Your task to perform on an android device: install app "DoorDash - Dasher" Image 0: 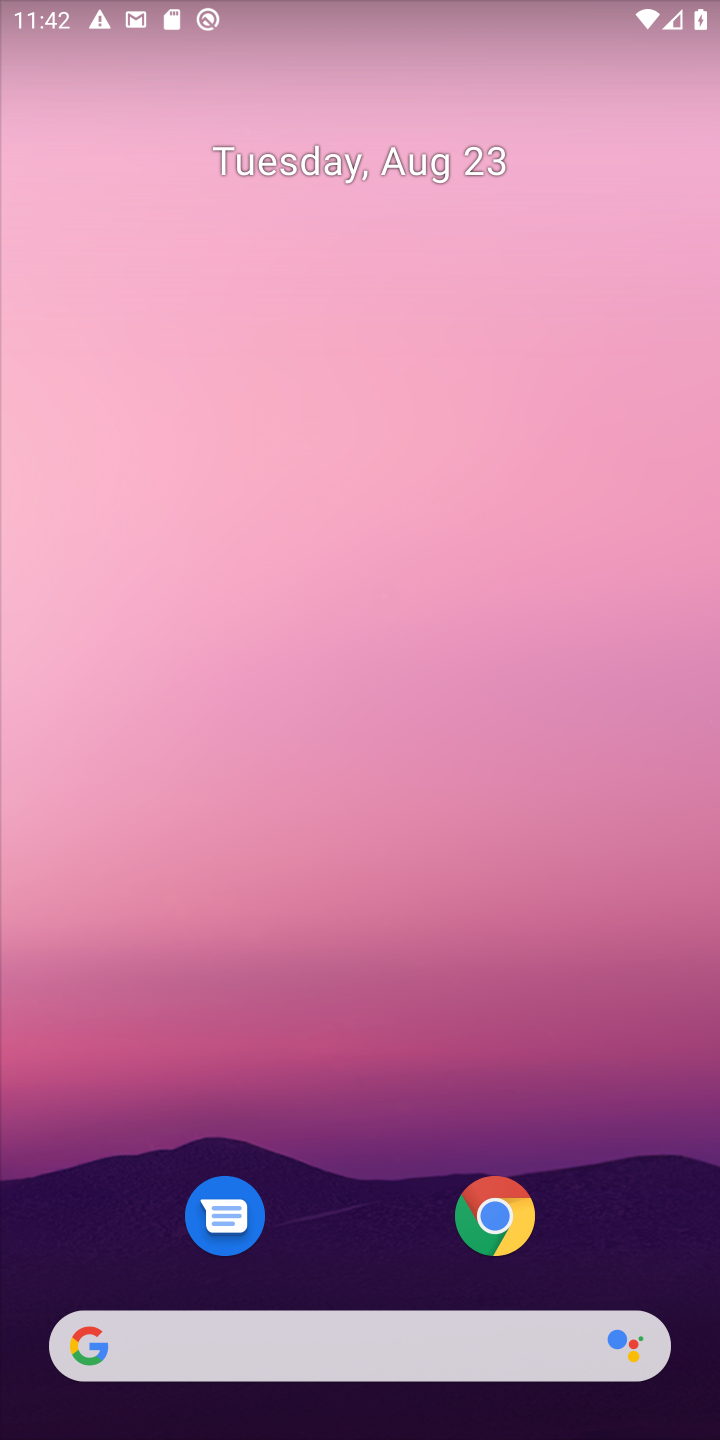
Step 0: drag from (297, 1312) to (456, 119)
Your task to perform on an android device: install app "DoorDash - Dasher" Image 1: 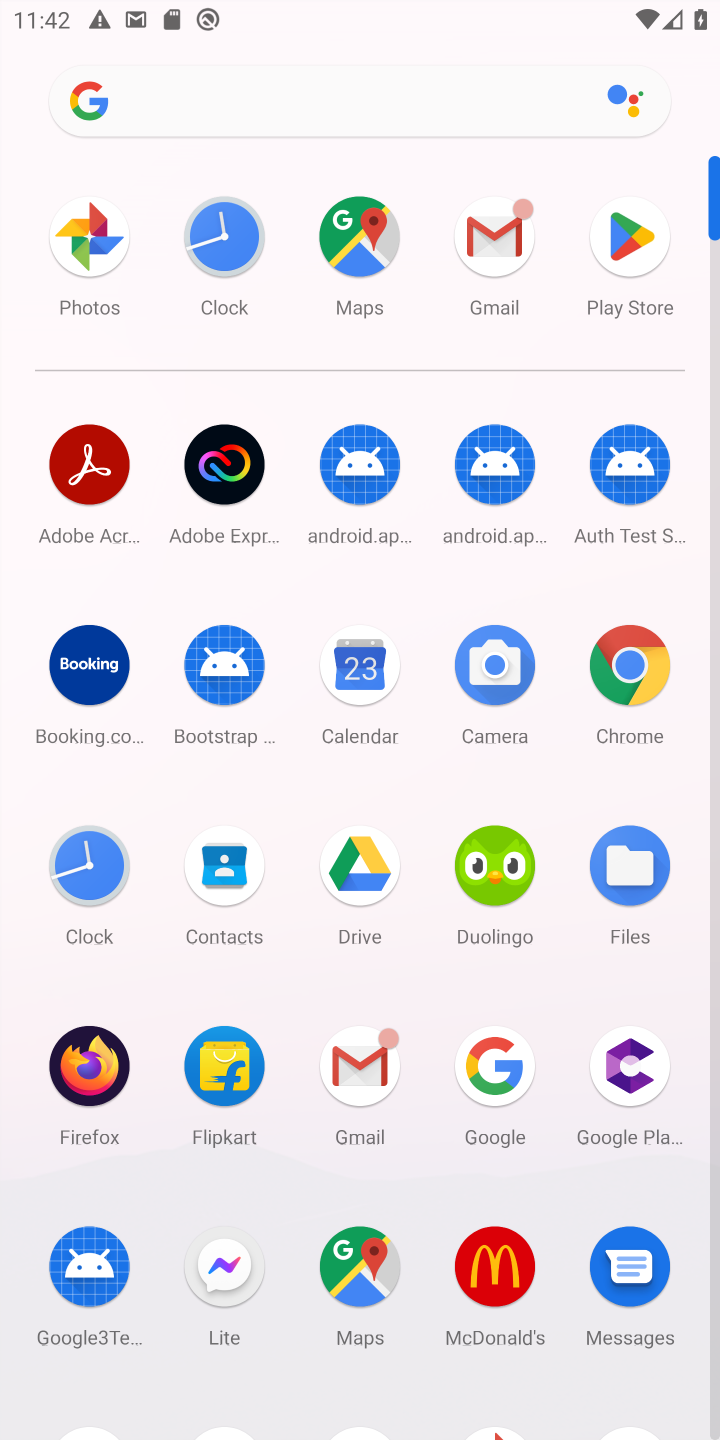
Step 1: click (628, 247)
Your task to perform on an android device: install app "DoorDash - Dasher" Image 2: 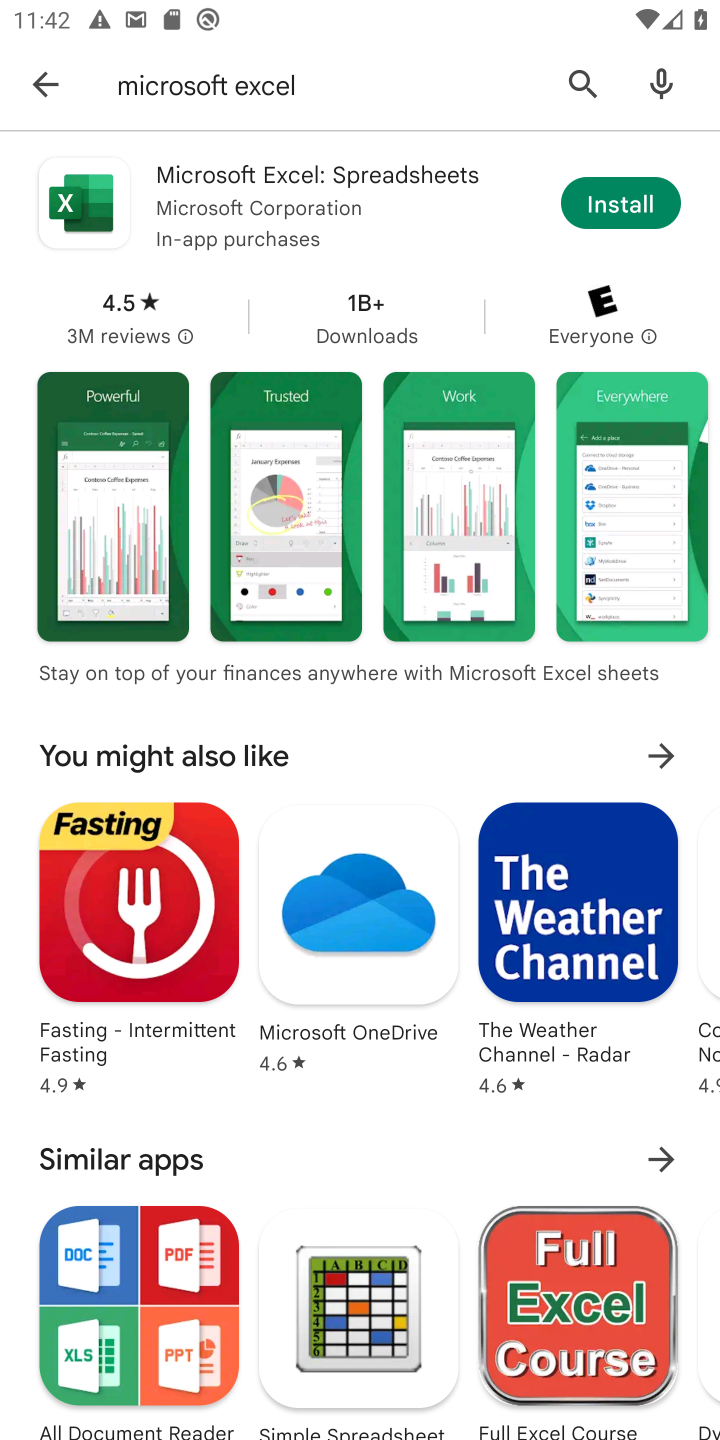
Step 2: press back button
Your task to perform on an android device: install app "DoorDash - Dasher" Image 3: 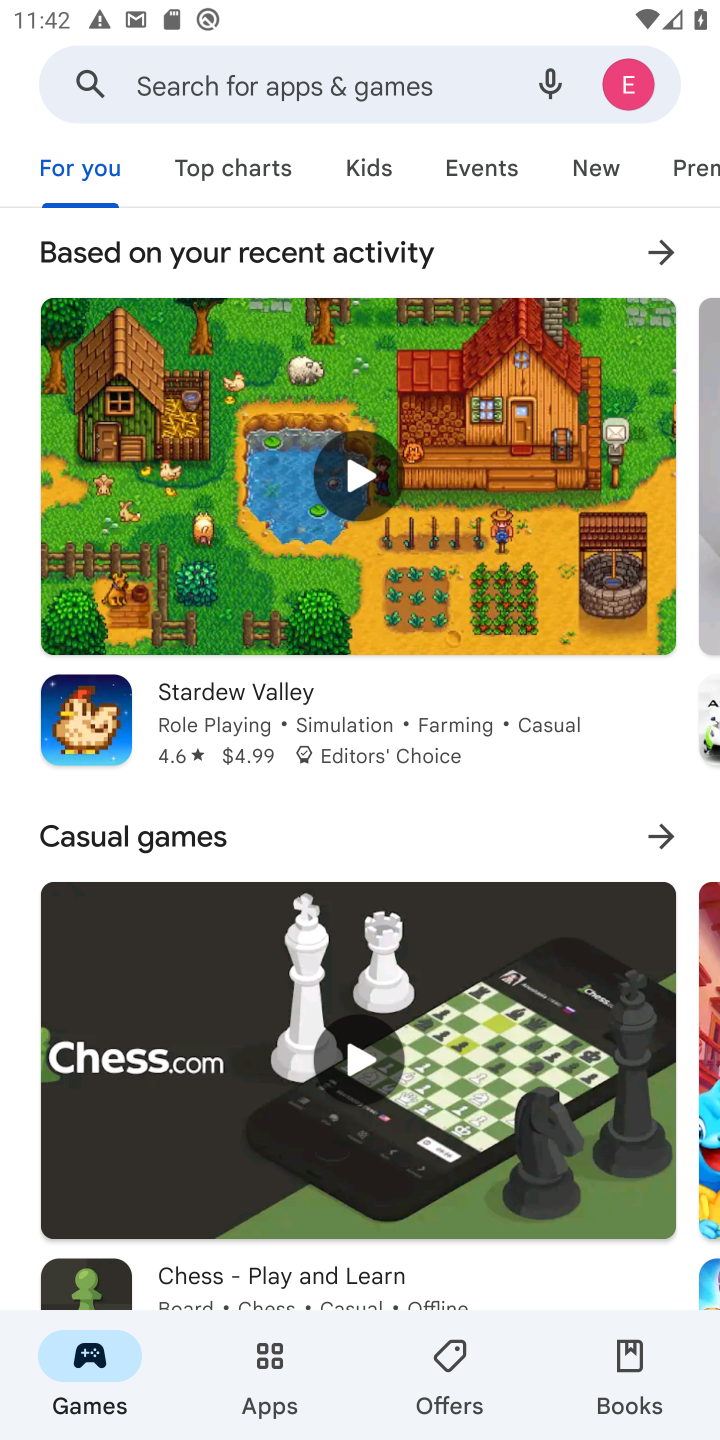
Step 3: click (432, 93)
Your task to perform on an android device: install app "DoorDash - Dasher" Image 4: 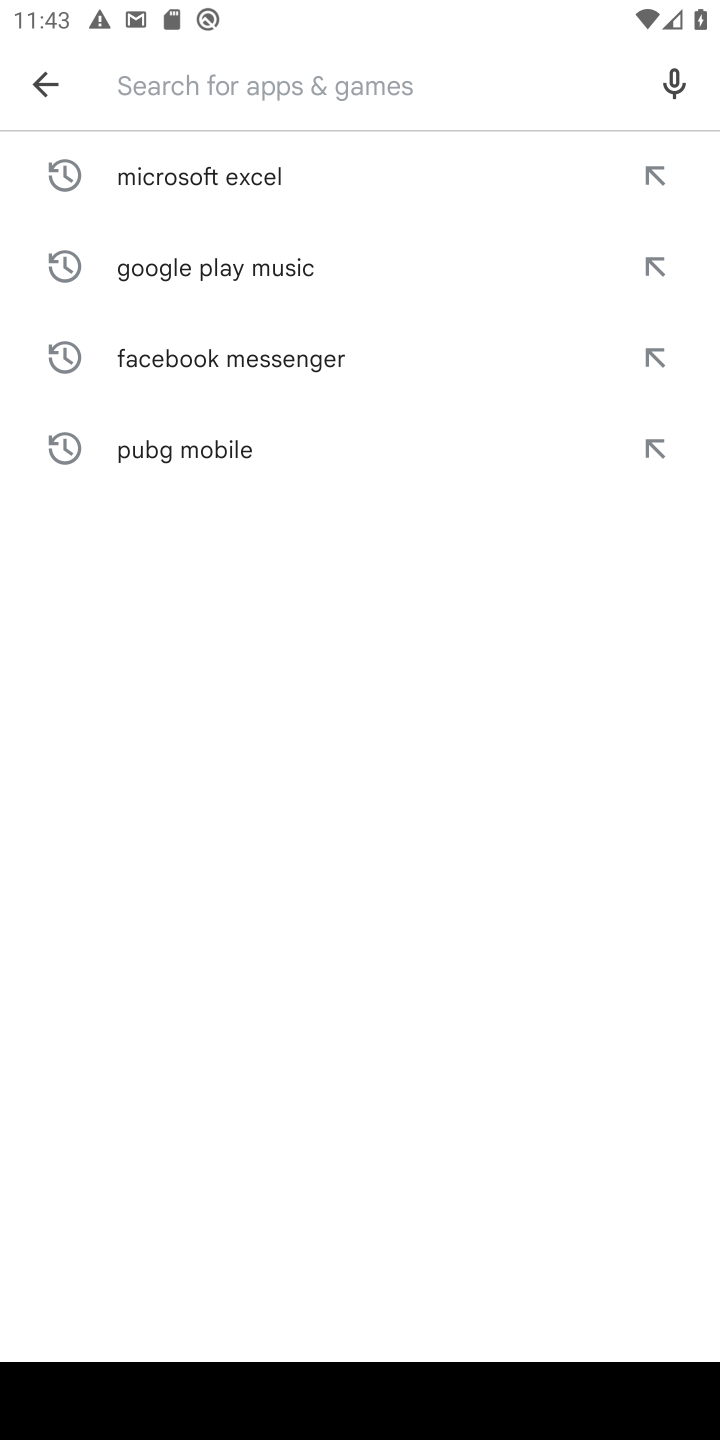
Step 4: type "DoorDash - Dasher"
Your task to perform on an android device: install app "DoorDash - Dasher" Image 5: 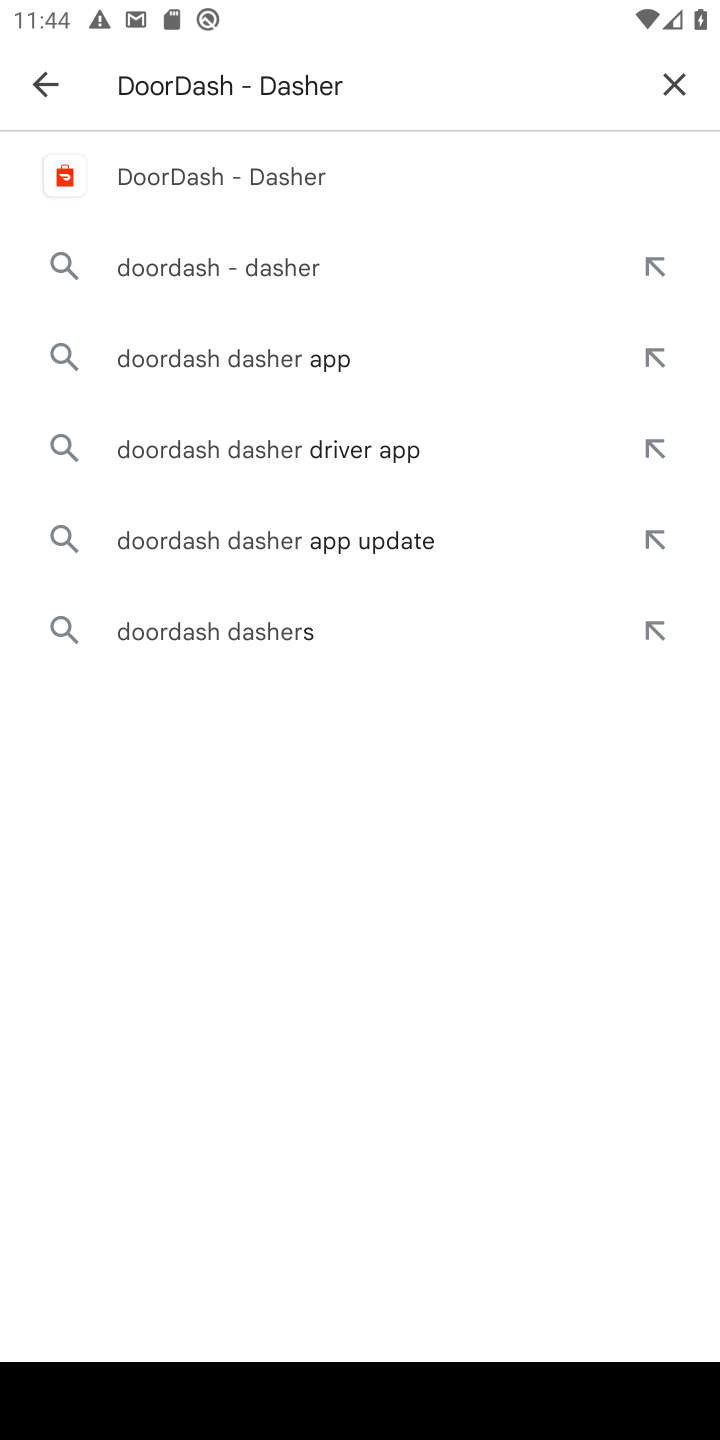
Step 5: click (219, 181)
Your task to perform on an android device: install app "DoorDash - Dasher" Image 6: 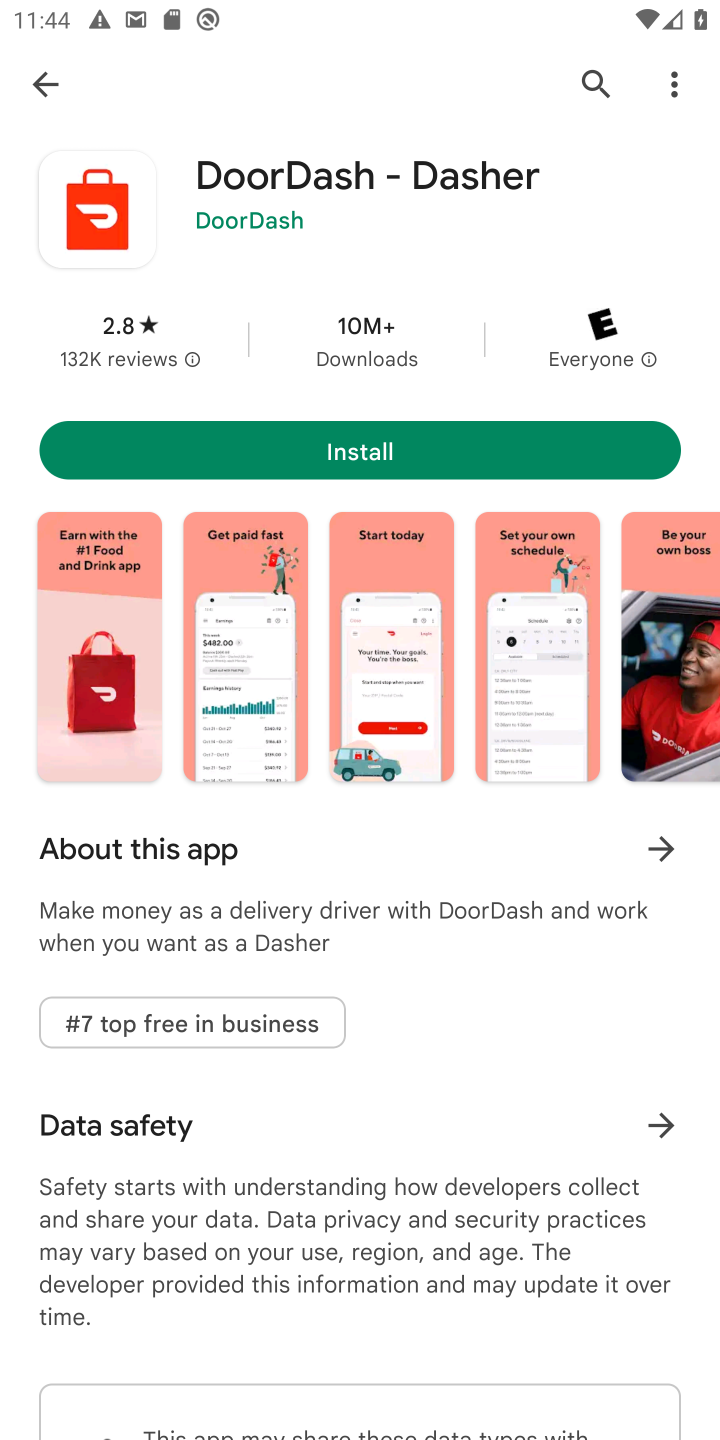
Step 6: click (402, 448)
Your task to perform on an android device: install app "DoorDash - Dasher" Image 7: 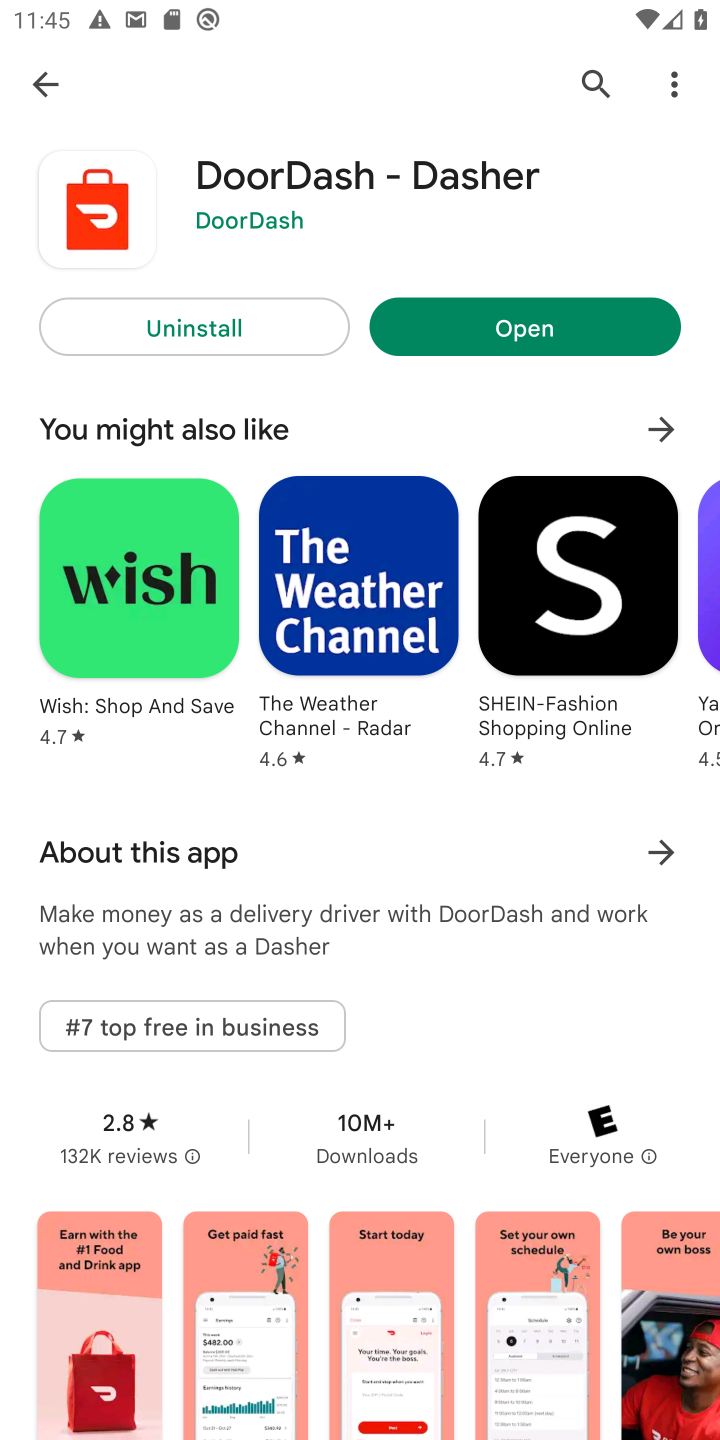
Step 7: task complete